Your task to perform on an android device: clear all cookies in the chrome app Image 0: 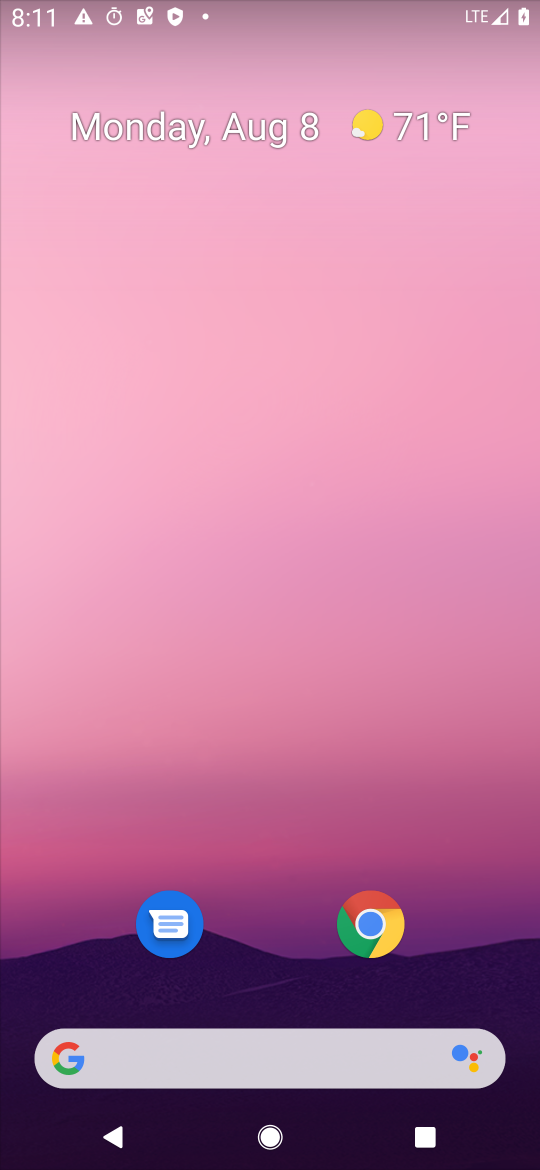
Step 0: drag from (271, 900) to (446, 114)
Your task to perform on an android device: clear all cookies in the chrome app Image 1: 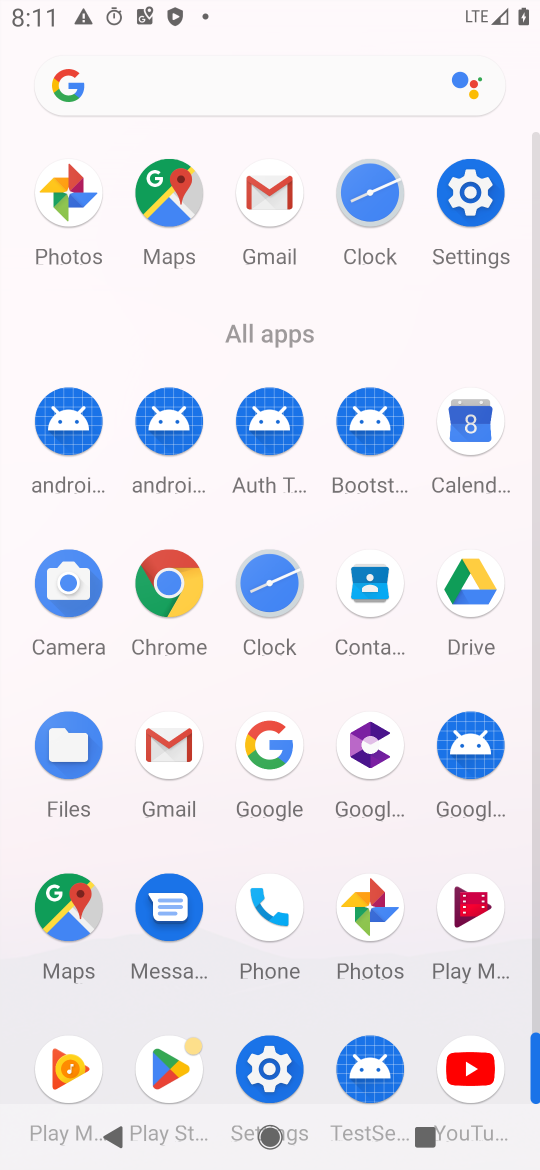
Step 1: click (179, 582)
Your task to perform on an android device: clear all cookies in the chrome app Image 2: 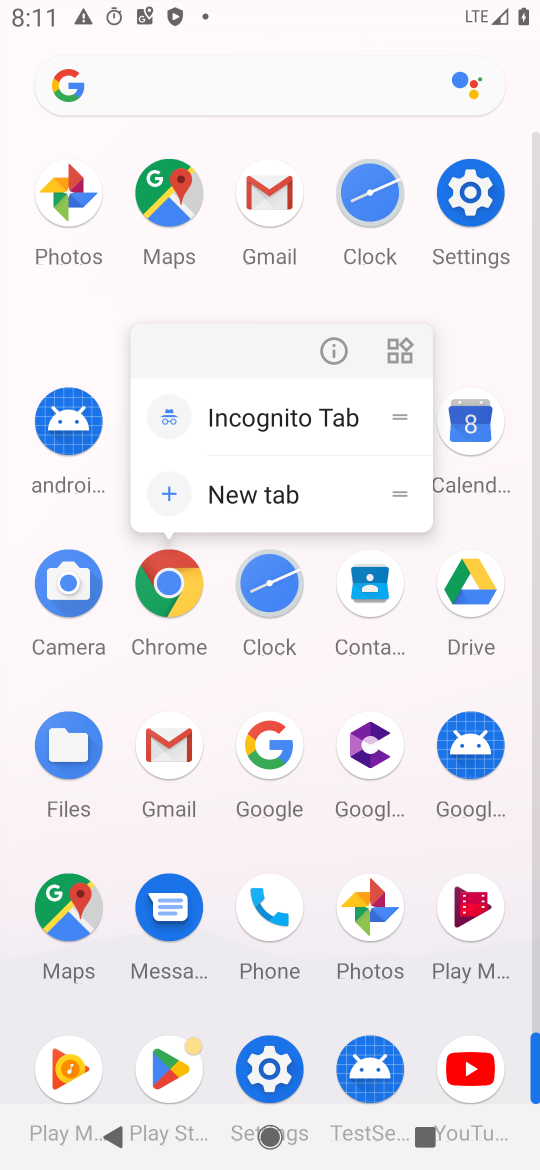
Step 2: click (337, 341)
Your task to perform on an android device: clear all cookies in the chrome app Image 3: 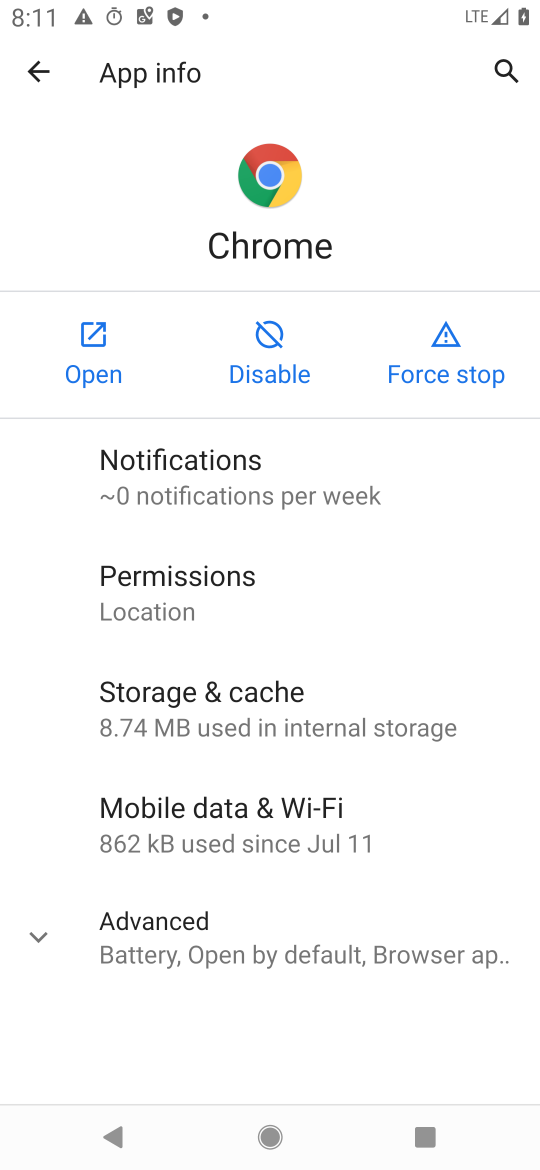
Step 3: click (99, 348)
Your task to perform on an android device: clear all cookies in the chrome app Image 4: 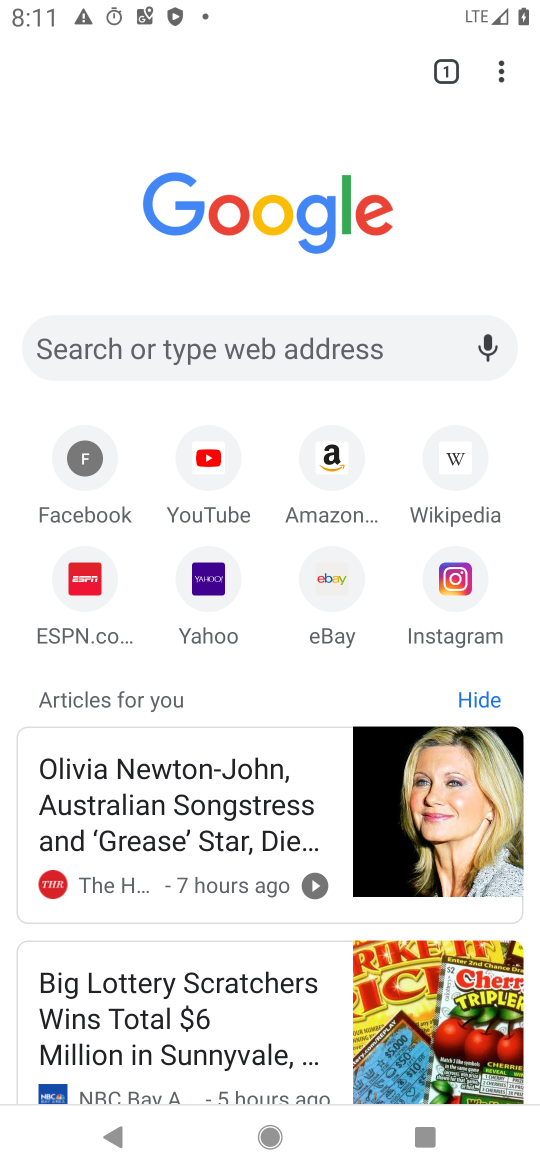
Step 4: drag from (499, 58) to (312, 397)
Your task to perform on an android device: clear all cookies in the chrome app Image 5: 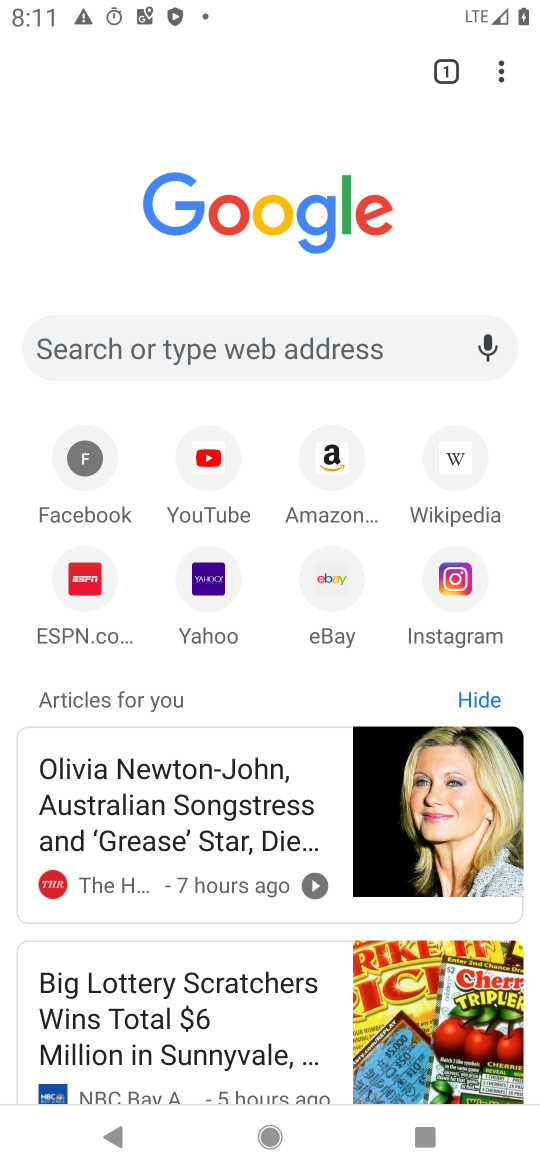
Step 5: click (309, 380)
Your task to perform on an android device: clear all cookies in the chrome app Image 6: 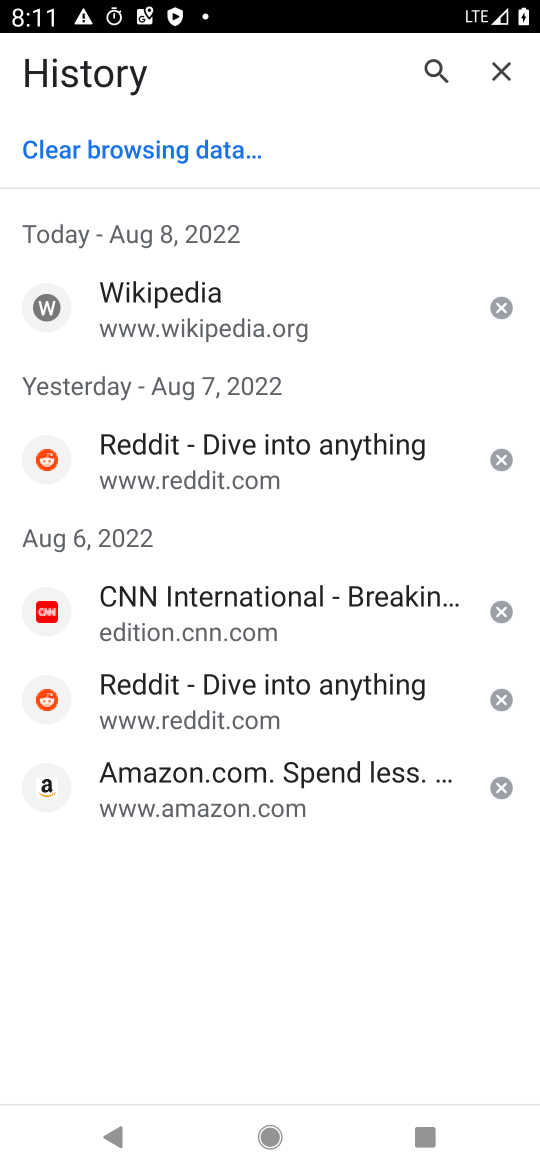
Step 6: click (90, 147)
Your task to perform on an android device: clear all cookies in the chrome app Image 7: 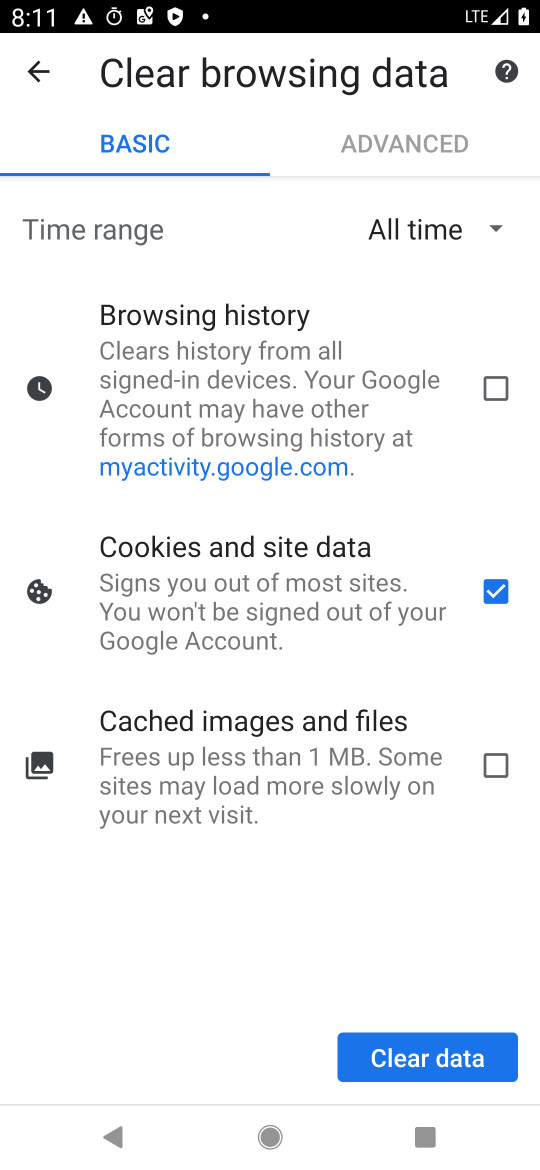
Step 7: click (411, 1043)
Your task to perform on an android device: clear all cookies in the chrome app Image 8: 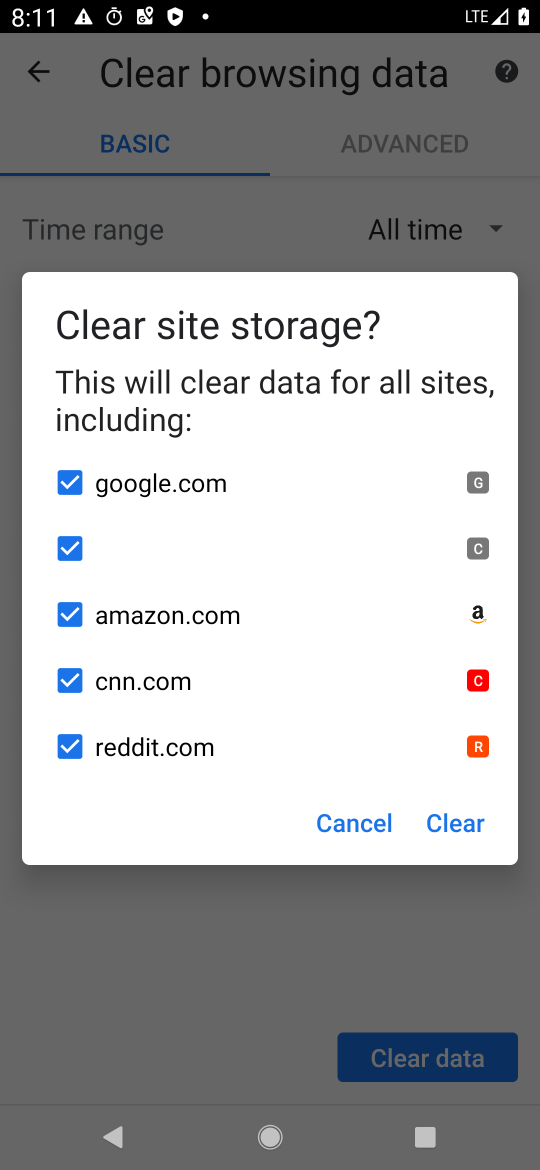
Step 8: click (461, 820)
Your task to perform on an android device: clear all cookies in the chrome app Image 9: 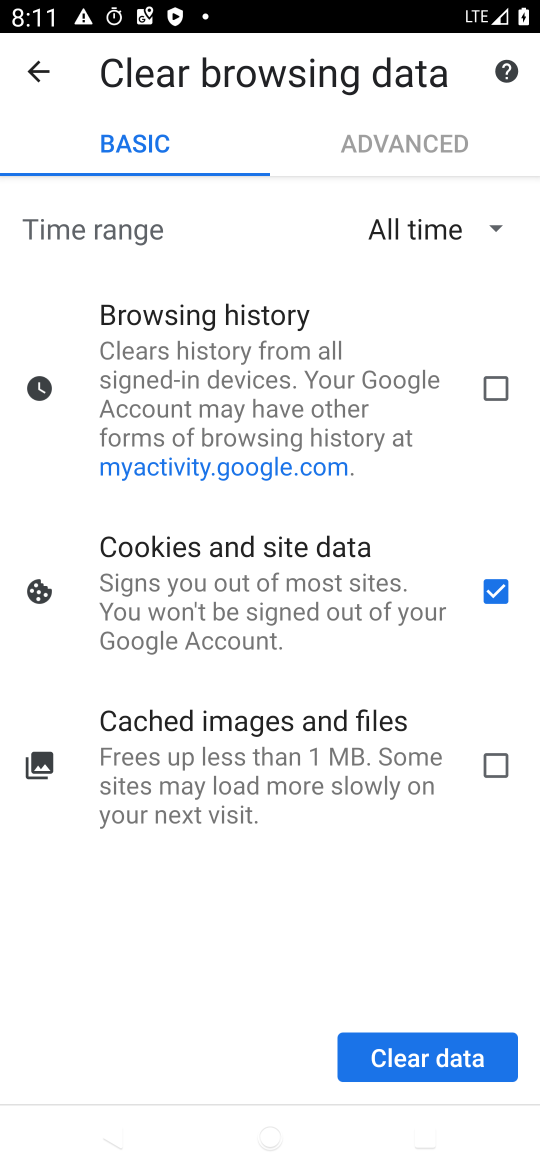
Step 9: task complete